Your task to perform on an android device: Empty the shopping cart on newegg. Search for "macbook pro" on newegg, select the first entry, add it to the cart, then select checkout. Image 0: 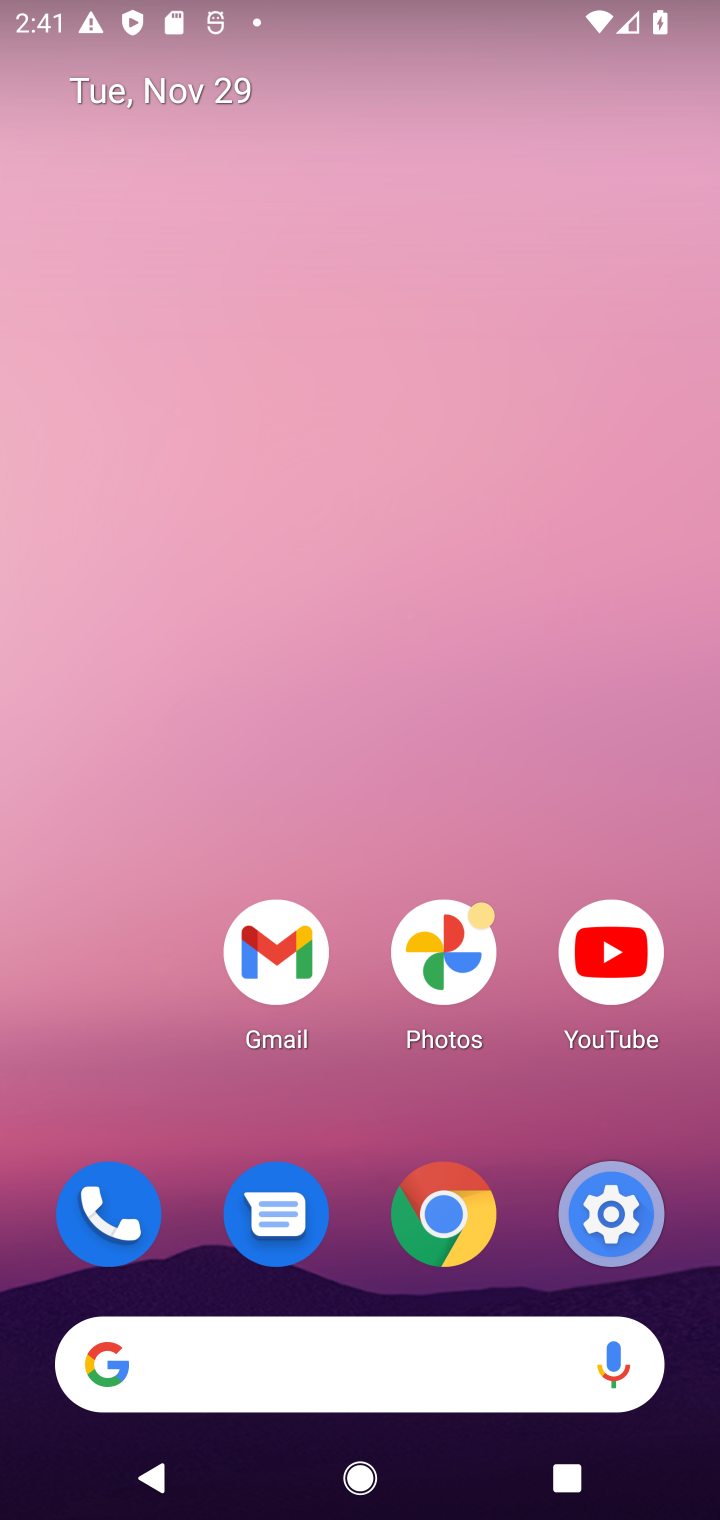
Step 0: click (312, 1366)
Your task to perform on an android device: Empty the shopping cart on newegg. Search for "macbook pro" on newegg, select the first entry, add it to the cart, then select checkout. Image 1: 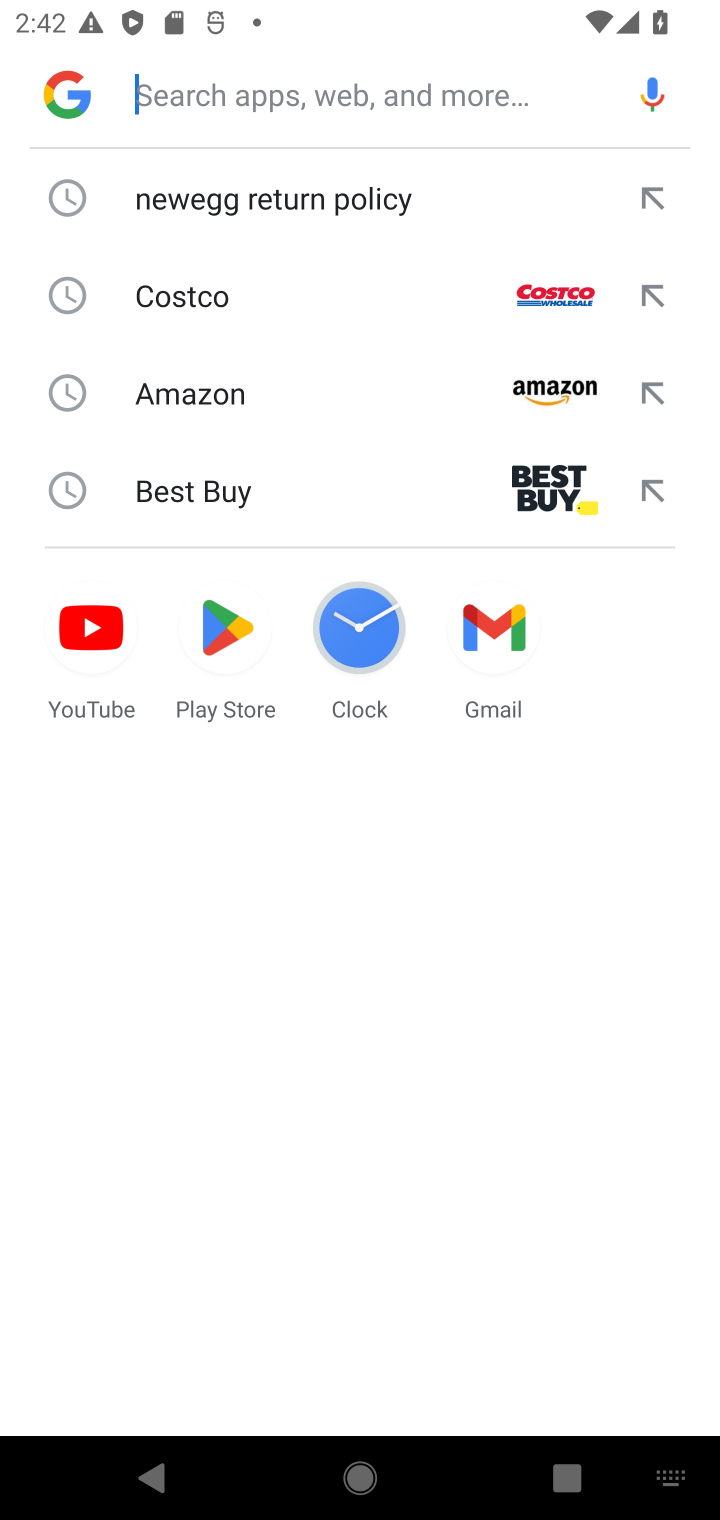
Step 1: click (284, 231)
Your task to perform on an android device: Empty the shopping cart on newegg. Search for "macbook pro" on newegg, select the first entry, add it to the cart, then select checkout. Image 2: 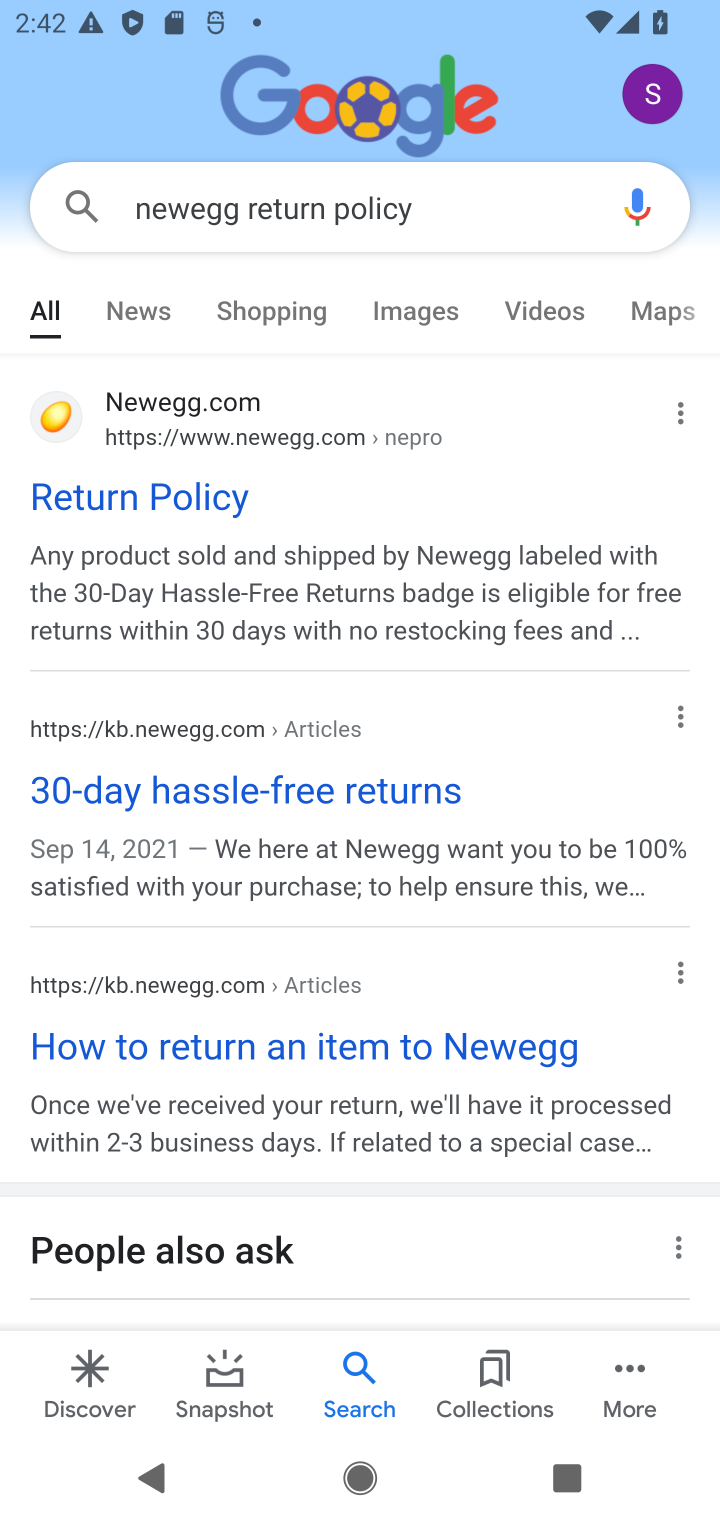
Step 2: click (128, 477)
Your task to perform on an android device: Empty the shopping cart on newegg. Search for "macbook pro" on newegg, select the first entry, add it to the cart, then select checkout. Image 3: 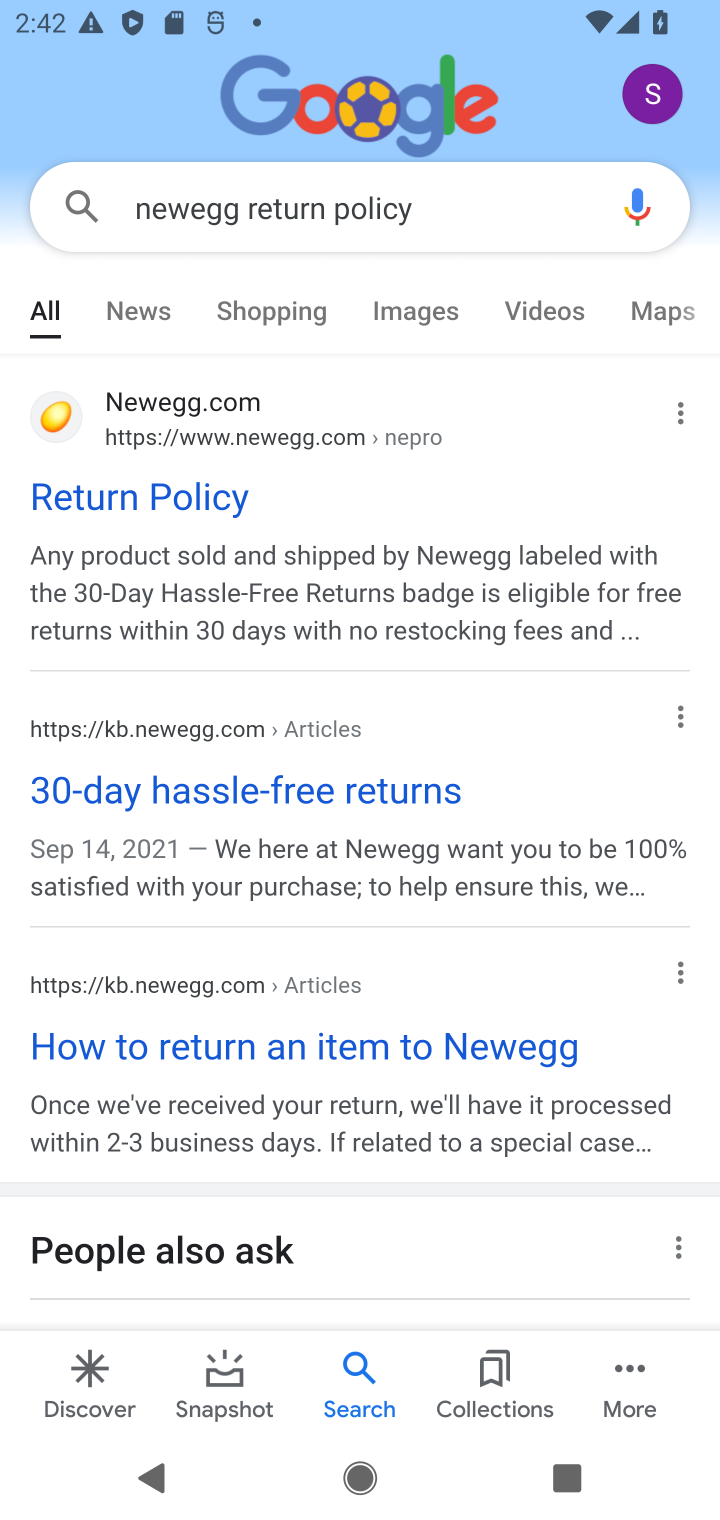
Step 3: task complete